Your task to perform on an android device: Open Amazon Image 0: 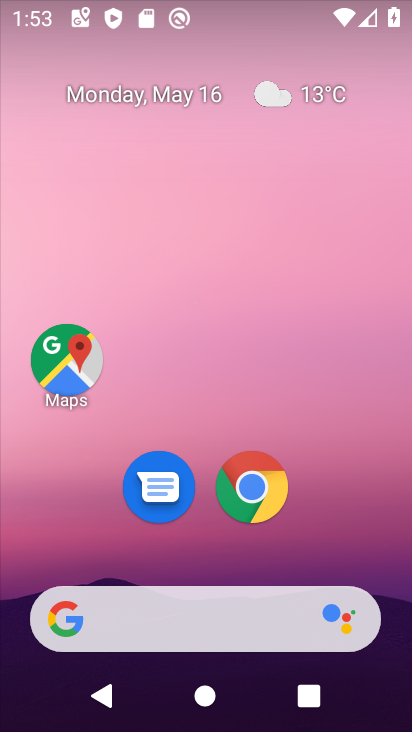
Step 0: drag from (344, 490) to (198, 3)
Your task to perform on an android device: Open Amazon Image 1: 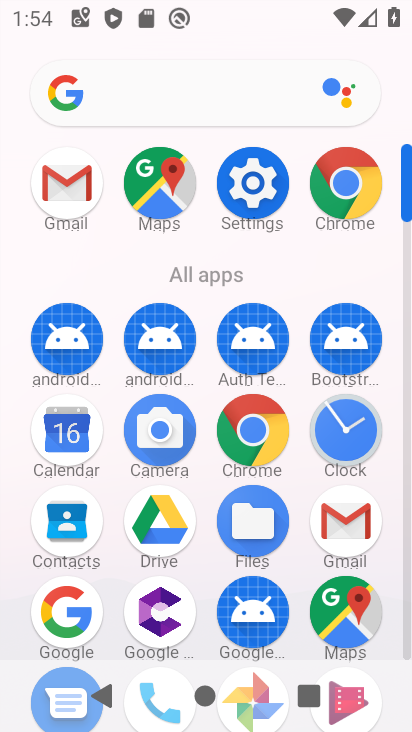
Step 1: click (250, 425)
Your task to perform on an android device: Open Amazon Image 2: 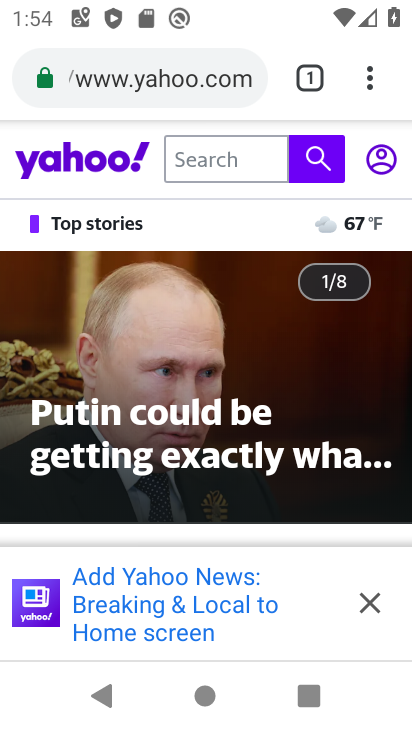
Step 2: click (180, 63)
Your task to perform on an android device: Open Amazon Image 3: 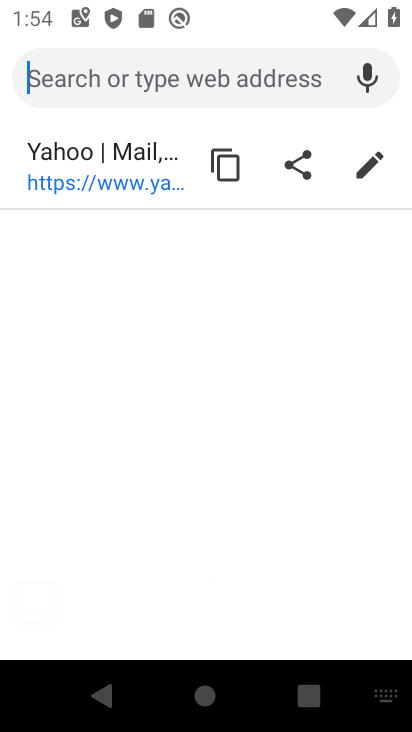
Step 3: type "Amazon"
Your task to perform on an android device: Open Amazon Image 4: 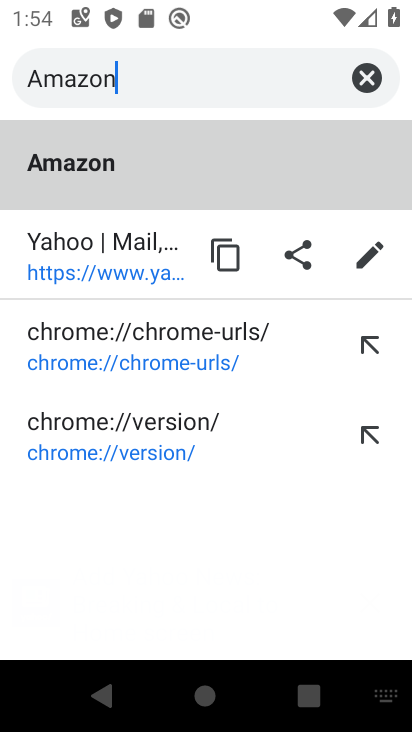
Step 4: type ""
Your task to perform on an android device: Open Amazon Image 5: 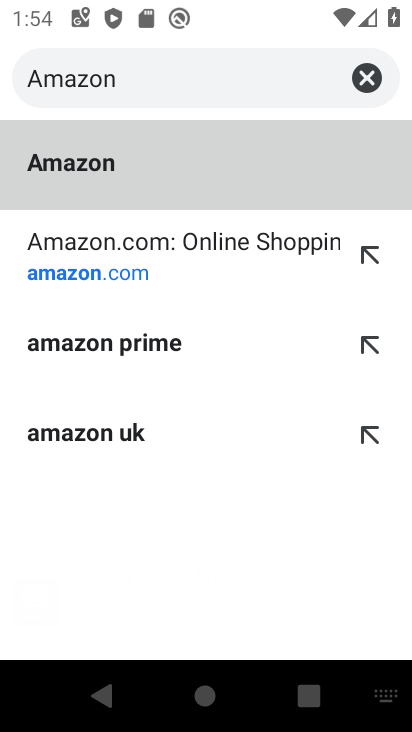
Step 5: click (194, 249)
Your task to perform on an android device: Open Amazon Image 6: 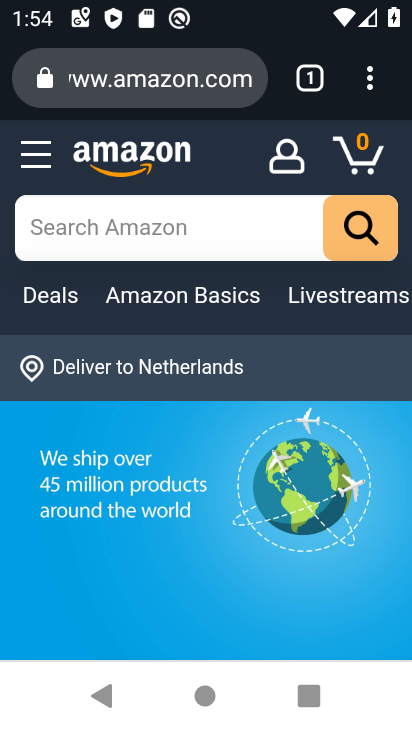
Step 6: task complete